Your task to perform on an android device: turn off priority inbox in the gmail app Image 0: 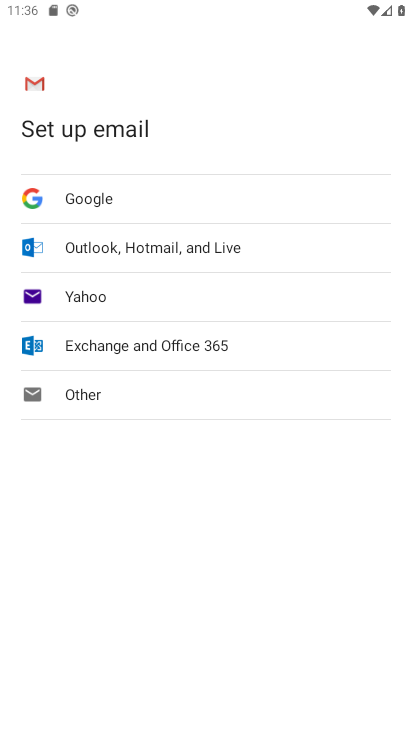
Step 0: press back button
Your task to perform on an android device: turn off priority inbox in the gmail app Image 1: 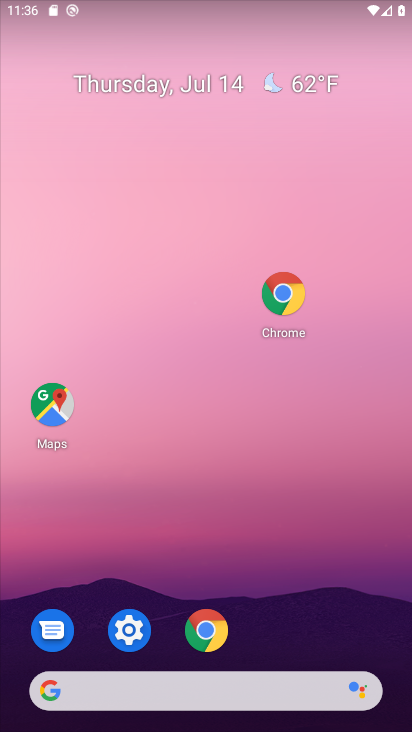
Step 1: drag from (267, 694) to (247, 163)
Your task to perform on an android device: turn off priority inbox in the gmail app Image 2: 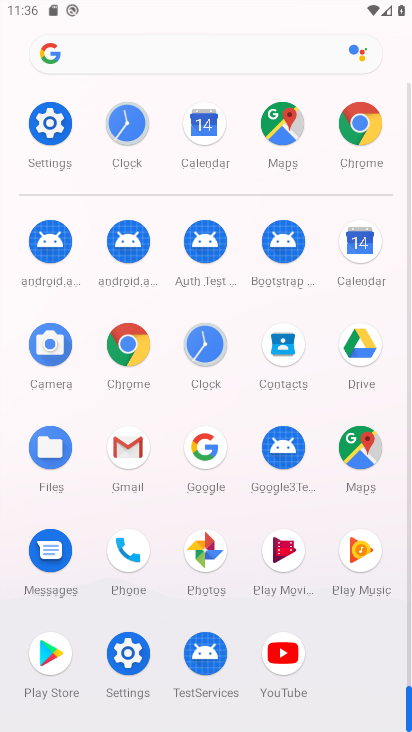
Step 2: click (128, 456)
Your task to perform on an android device: turn off priority inbox in the gmail app Image 3: 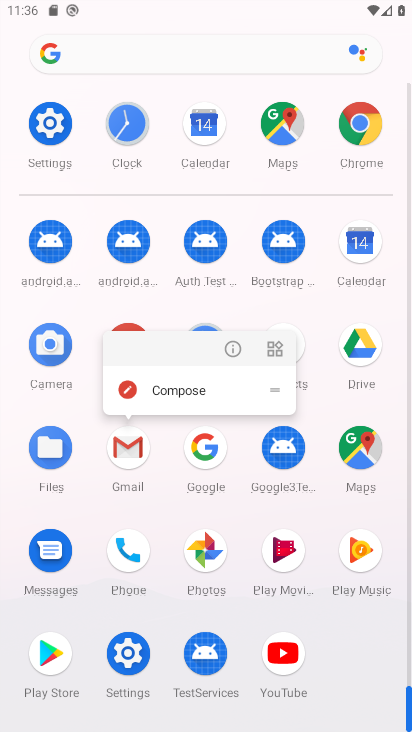
Step 3: click (122, 458)
Your task to perform on an android device: turn off priority inbox in the gmail app Image 4: 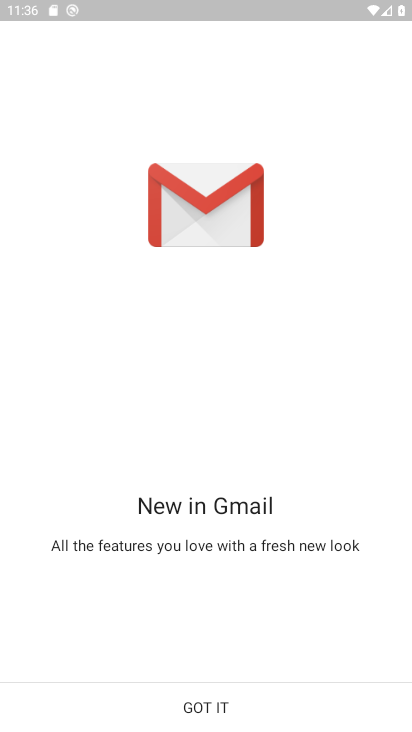
Step 4: click (204, 689)
Your task to perform on an android device: turn off priority inbox in the gmail app Image 5: 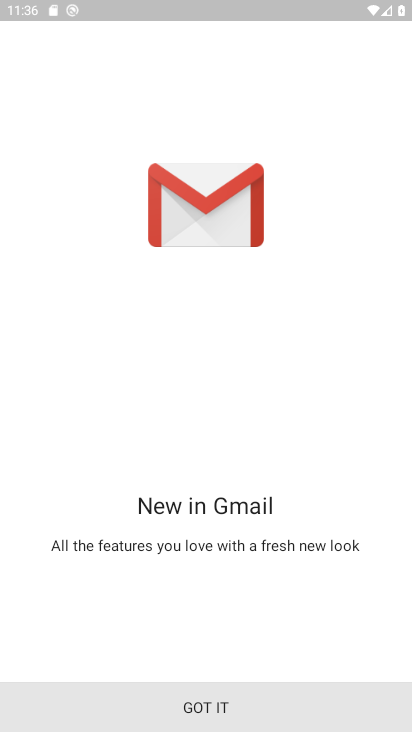
Step 5: click (206, 692)
Your task to perform on an android device: turn off priority inbox in the gmail app Image 6: 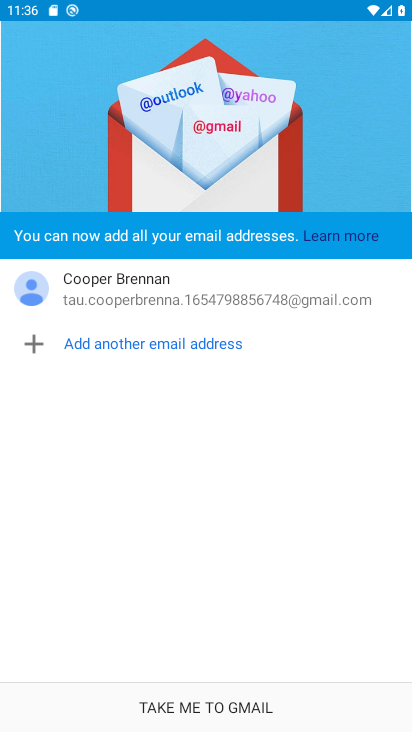
Step 6: click (259, 695)
Your task to perform on an android device: turn off priority inbox in the gmail app Image 7: 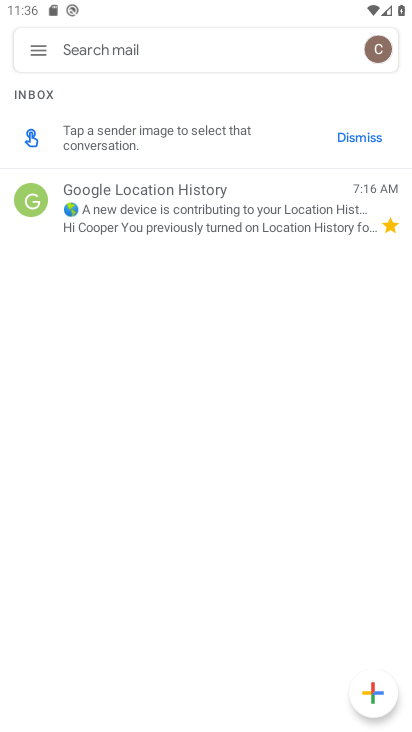
Step 7: drag from (32, 45) to (85, 455)
Your task to perform on an android device: turn off priority inbox in the gmail app Image 8: 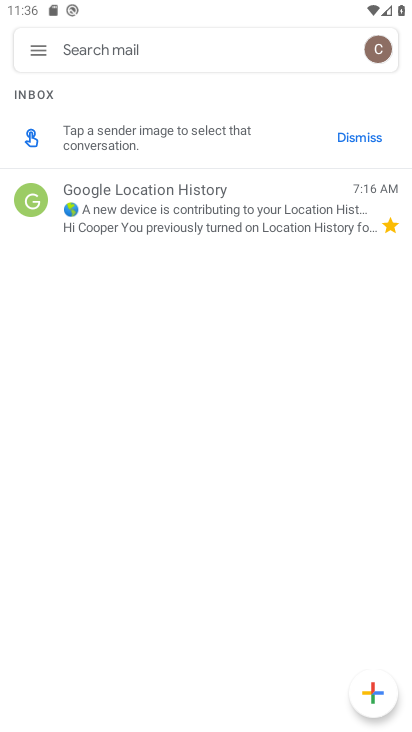
Step 8: drag from (36, 48) to (52, 110)
Your task to perform on an android device: turn off priority inbox in the gmail app Image 9: 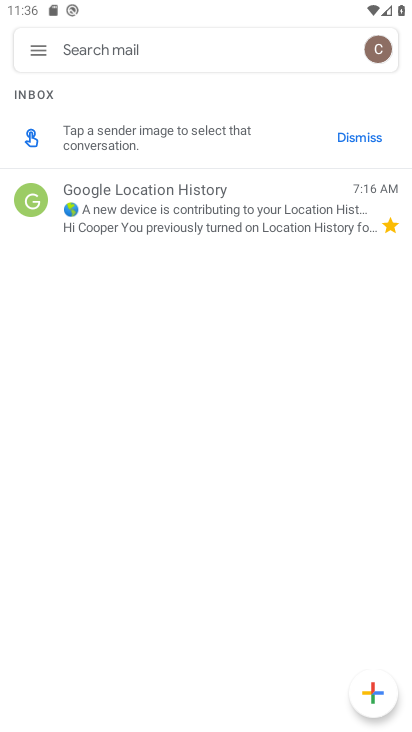
Step 9: click (34, 53)
Your task to perform on an android device: turn off priority inbox in the gmail app Image 10: 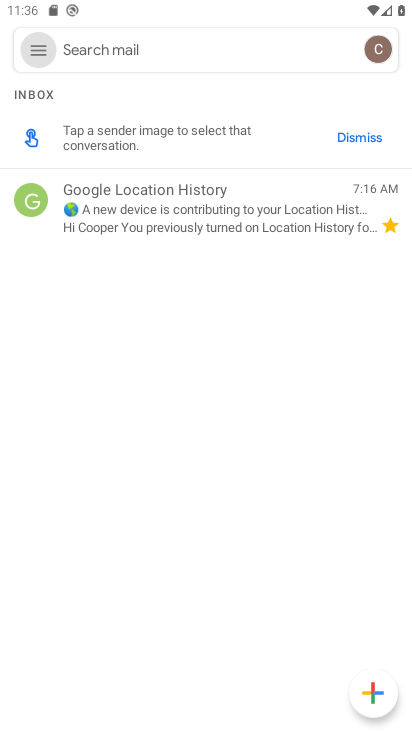
Step 10: drag from (35, 53) to (73, 490)
Your task to perform on an android device: turn off priority inbox in the gmail app Image 11: 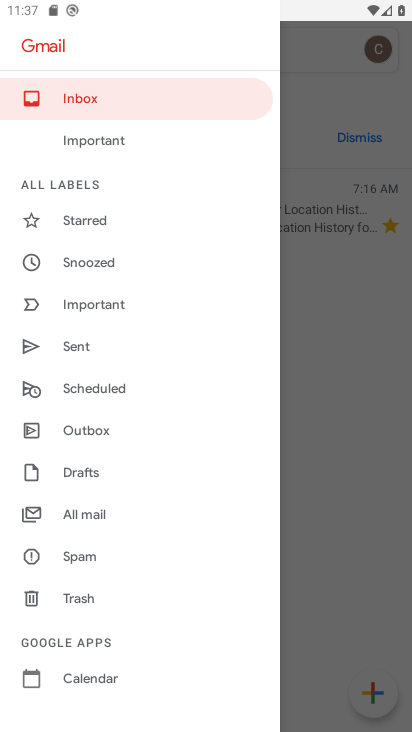
Step 11: drag from (96, 593) to (97, 394)
Your task to perform on an android device: turn off priority inbox in the gmail app Image 12: 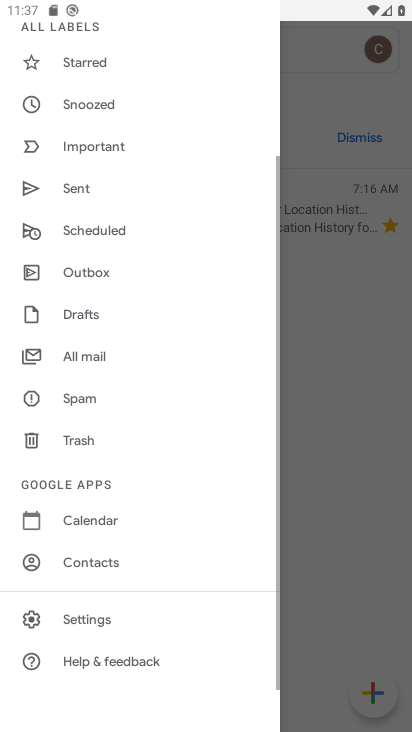
Step 12: drag from (104, 627) to (127, 325)
Your task to perform on an android device: turn off priority inbox in the gmail app Image 13: 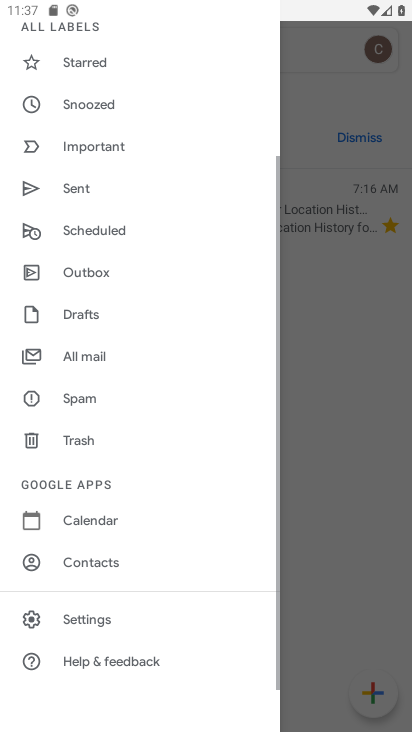
Step 13: click (84, 619)
Your task to perform on an android device: turn off priority inbox in the gmail app Image 14: 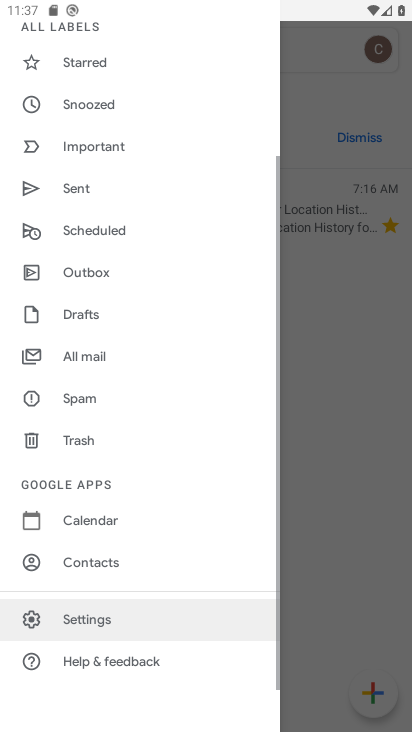
Step 14: click (79, 622)
Your task to perform on an android device: turn off priority inbox in the gmail app Image 15: 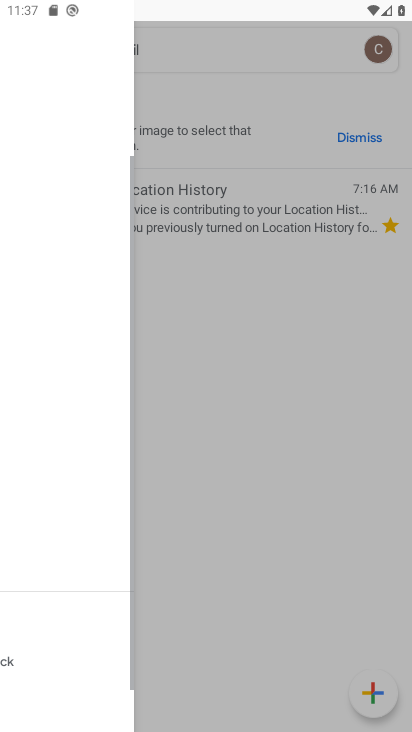
Step 15: click (81, 622)
Your task to perform on an android device: turn off priority inbox in the gmail app Image 16: 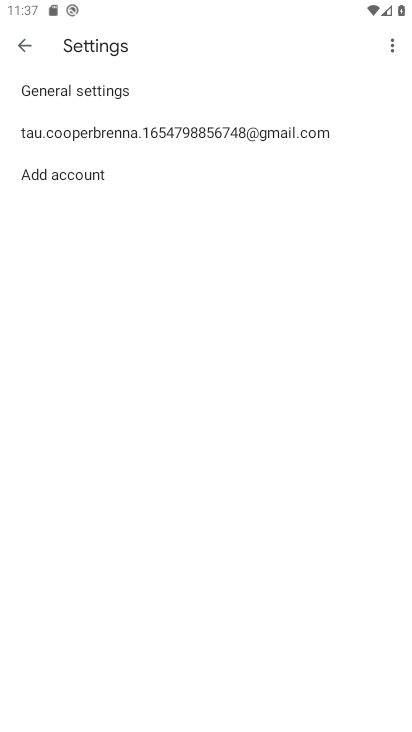
Step 16: click (85, 119)
Your task to perform on an android device: turn off priority inbox in the gmail app Image 17: 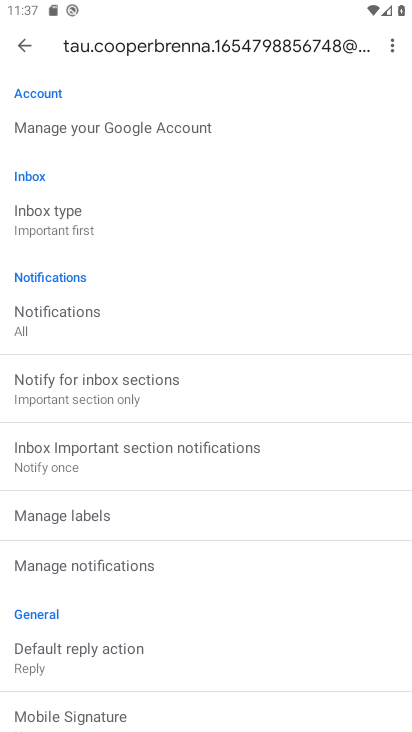
Step 17: click (50, 222)
Your task to perform on an android device: turn off priority inbox in the gmail app Image 18: 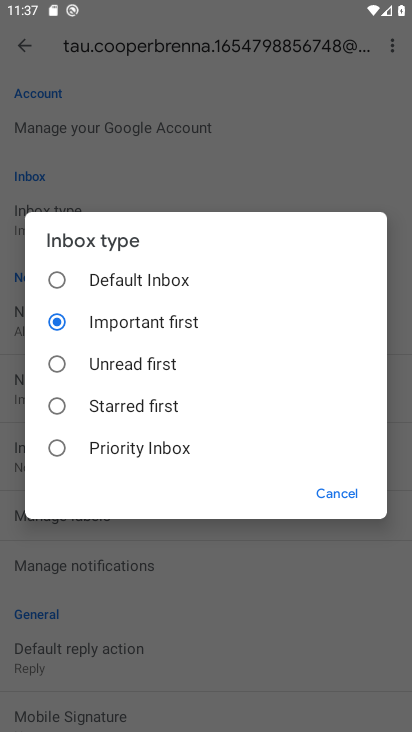
Step 18: click (44, 444)
Your task to perform on an android device: turn off priority inbox in the gmail app Image 19: 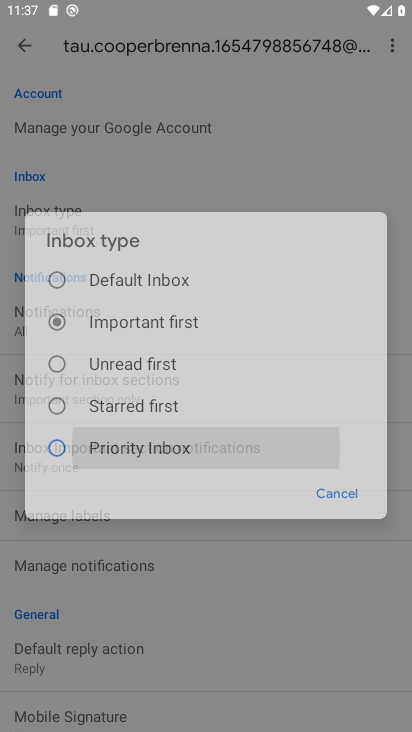
Step 19: click (45, 444)
Your task to perform on an android device: turn off priority inbox in the gmail app Image 20: 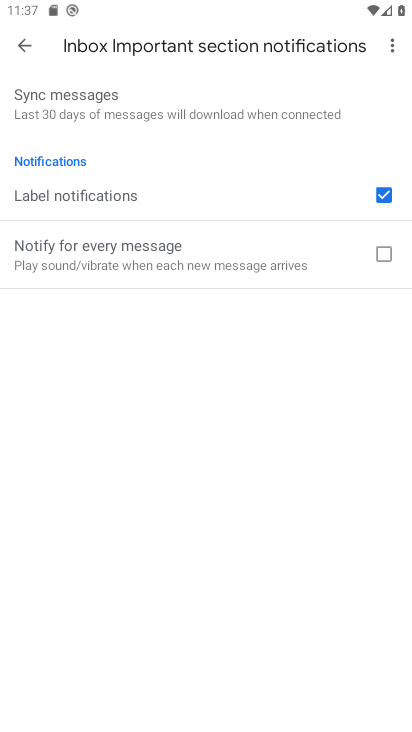
Step 20: task complete